Your task to perform on an android device: show emergency info Image 0: 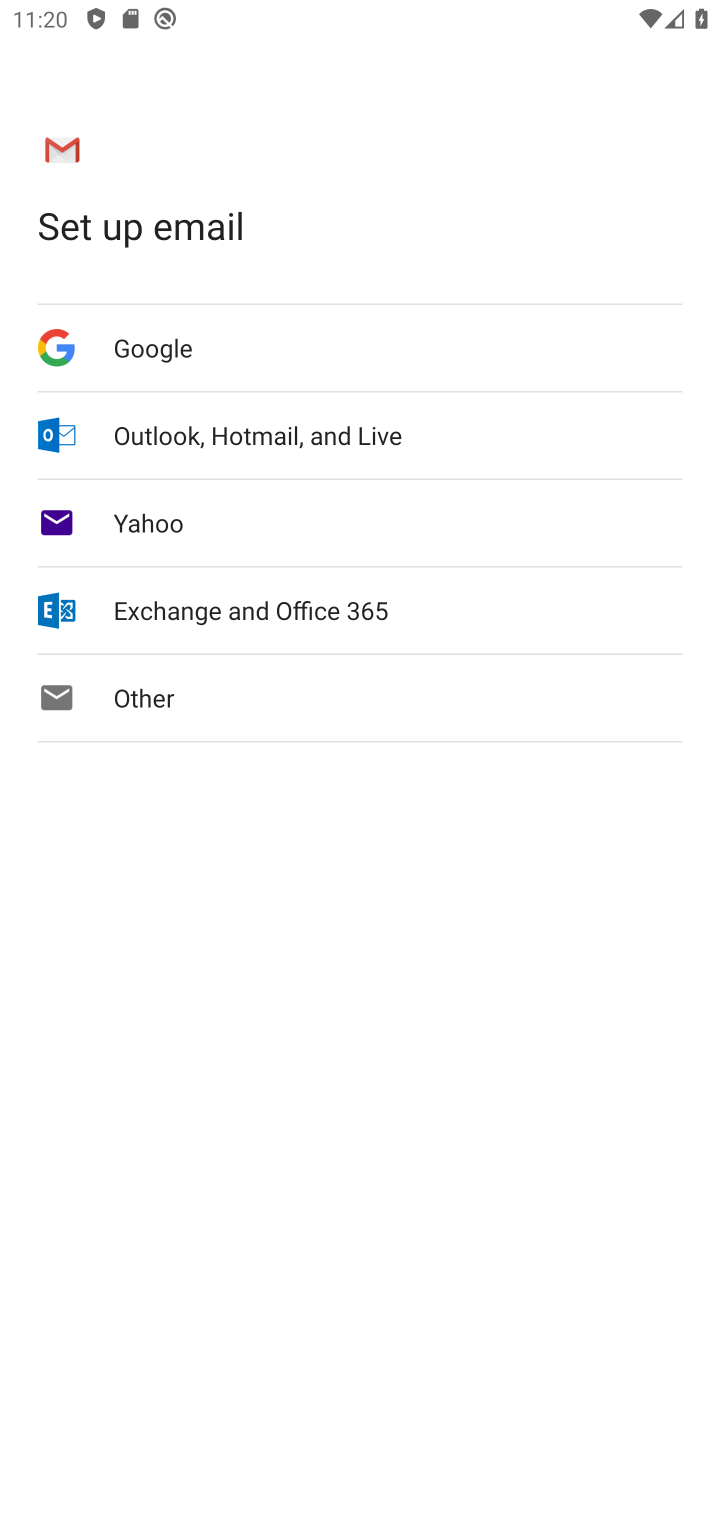
Step 0: press home button
Your task to perform on an android device: show emergency info Image 1: 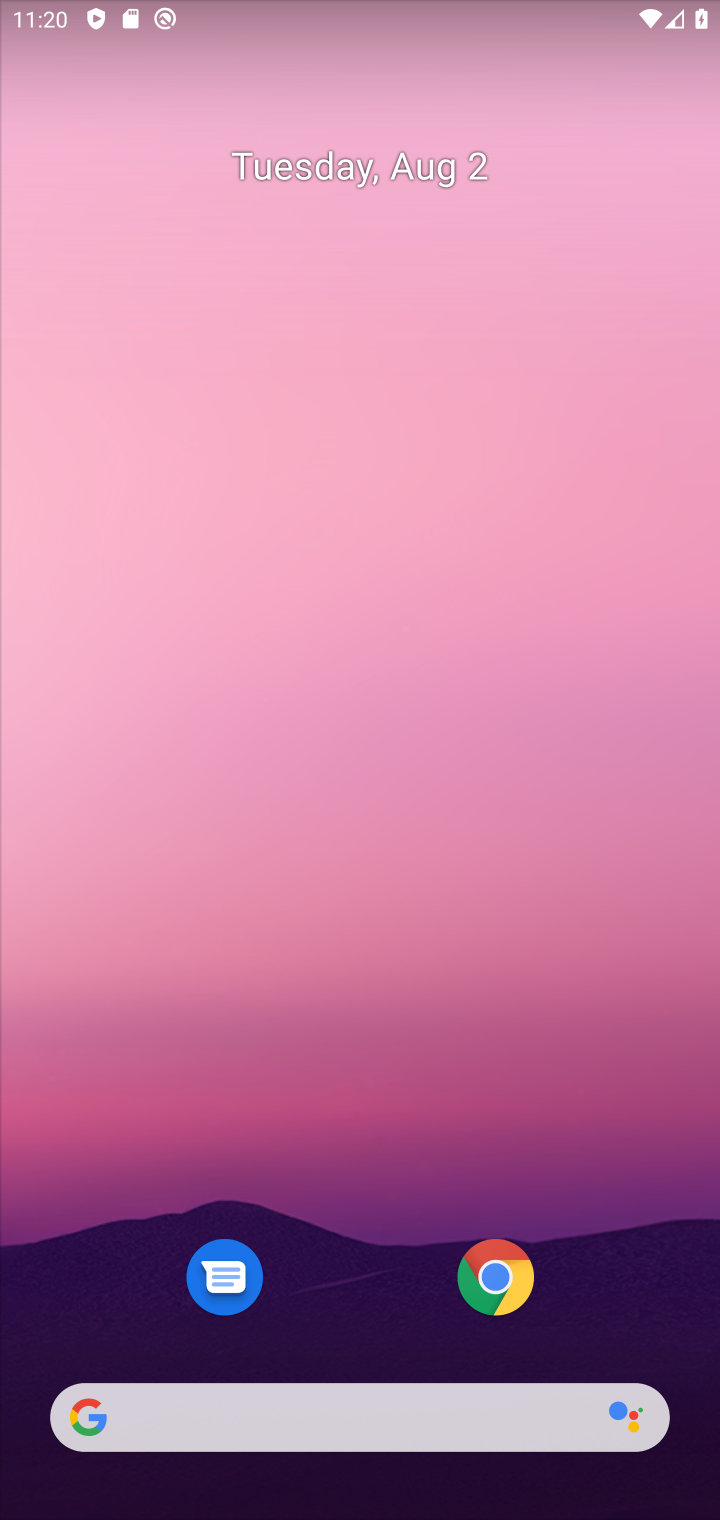
Step 1: drag from (650, 1273) to (456, 186)
Your task to perform on an android device: show emergency info Image 2: 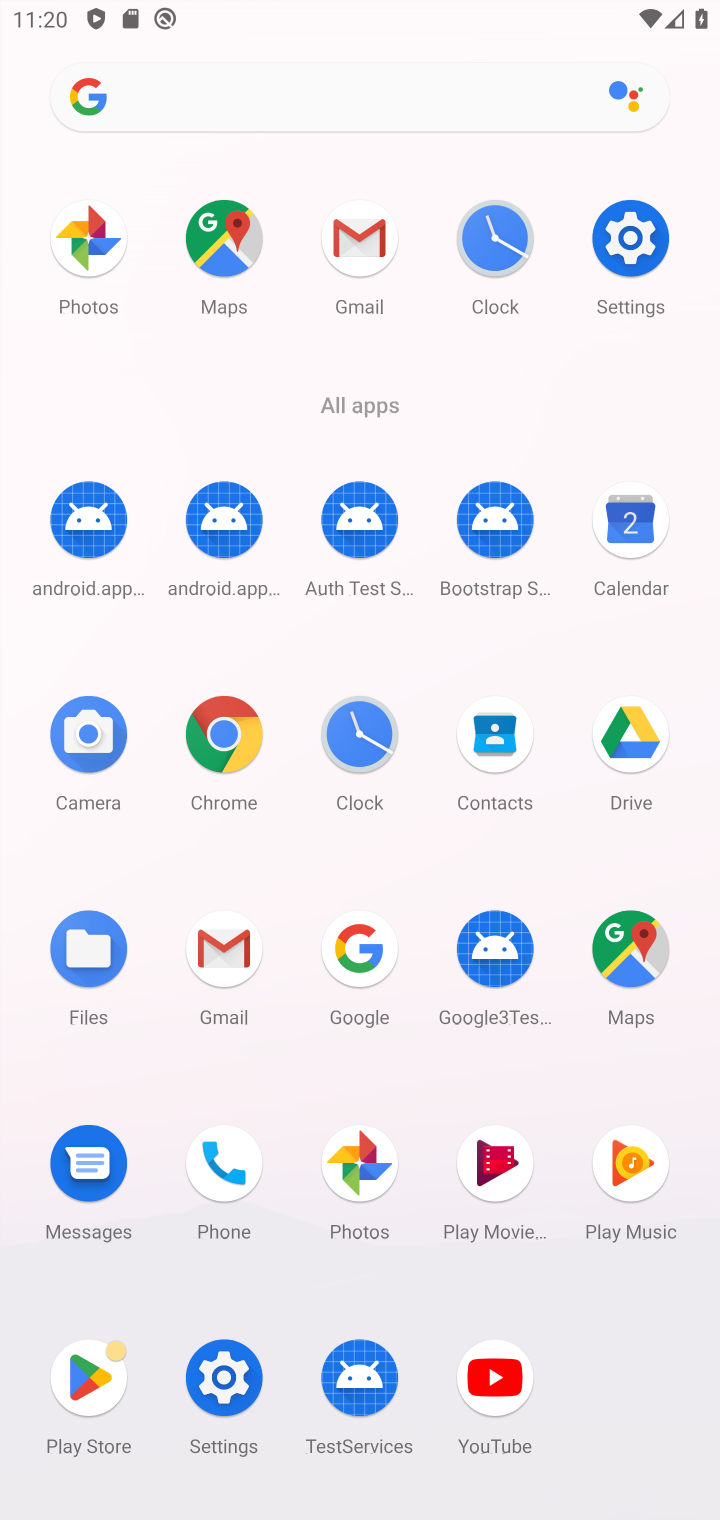
Step 2: click (615, 247)
Your task to perform on an android device: show emergency info Image 3: 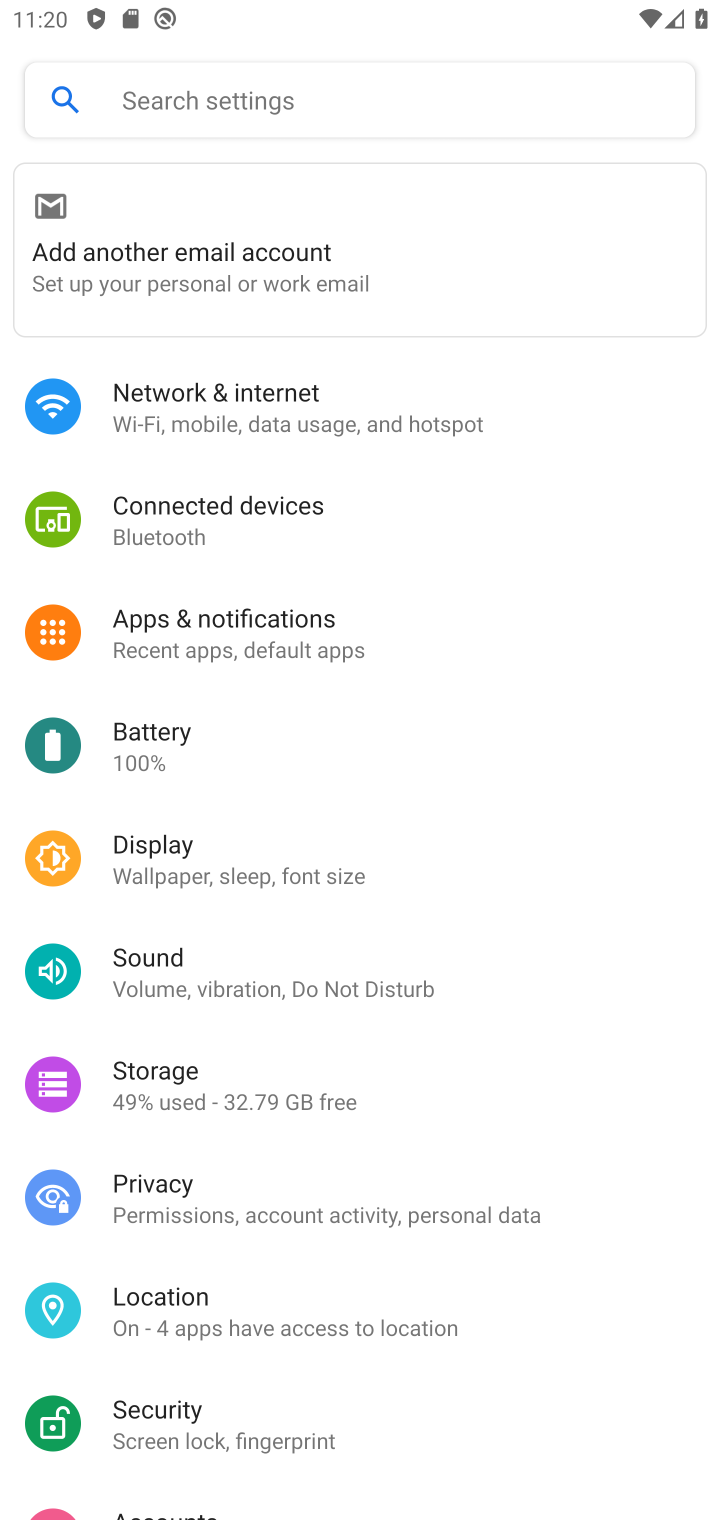
Step 3: drag from (419, 1448) to (332, 618)
Your task to perform on an android device: show emergency info Image 4: 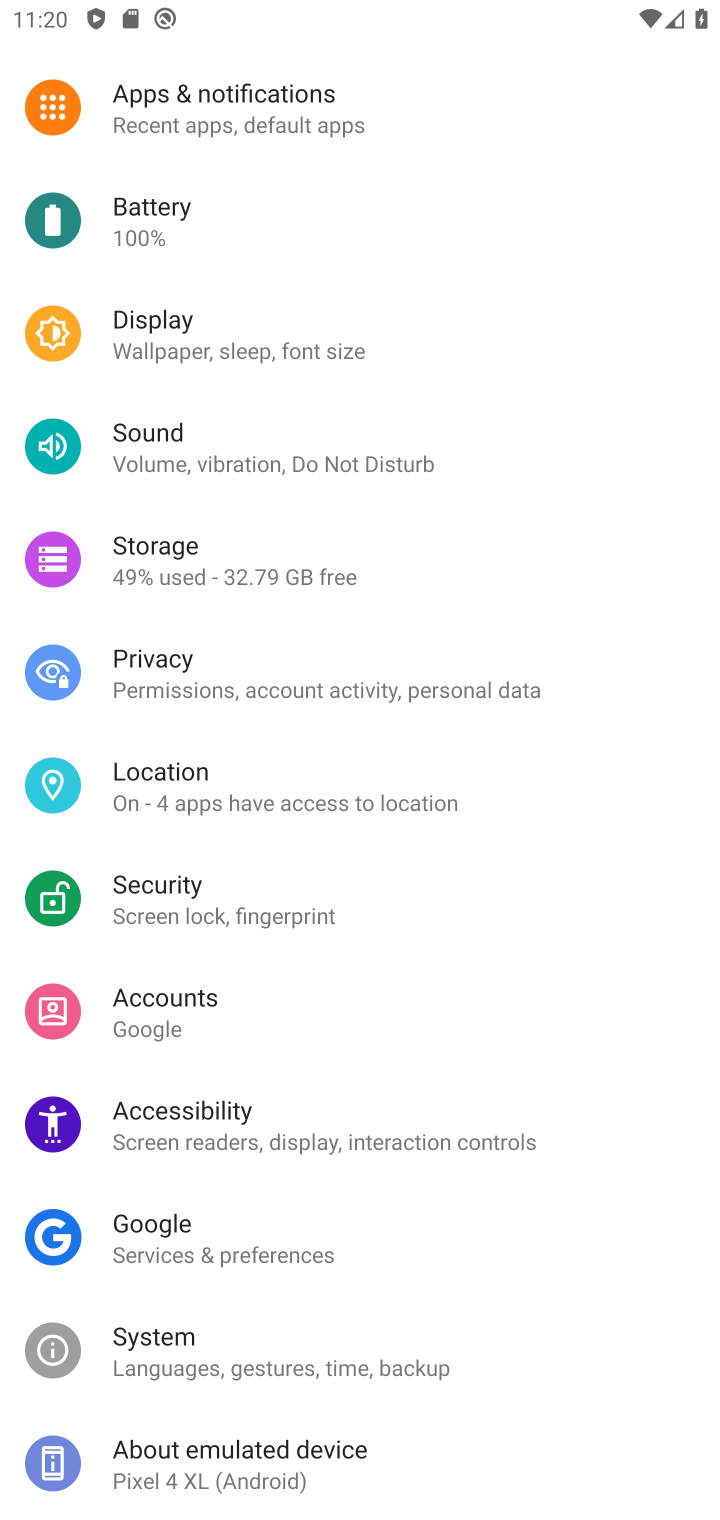
Step 4: drag from (387, 1431) to (329, 796)
Your task to perform on an android device: show emergency info Image 5: 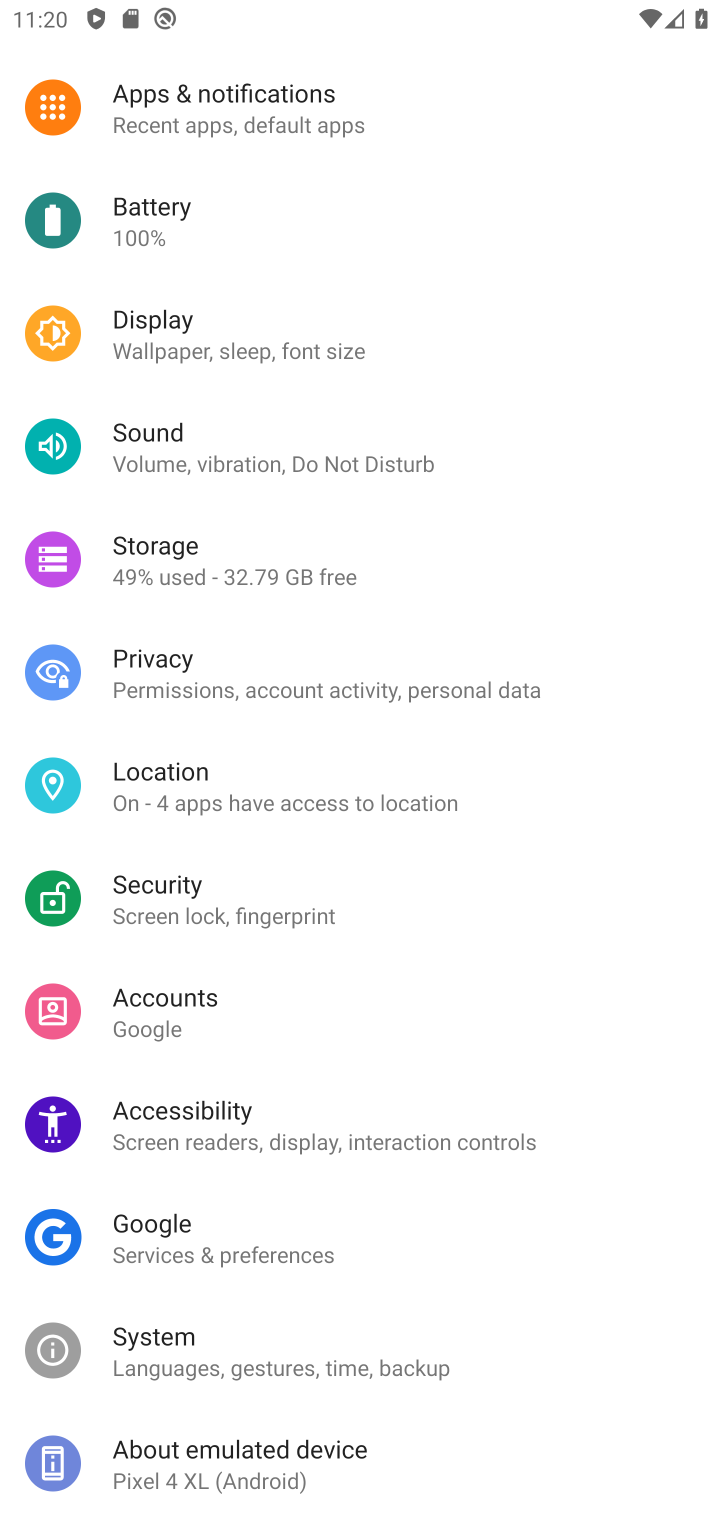
Step 5: click (414, 1485)
Your task to perform on an android device: show emergency info Image 6: 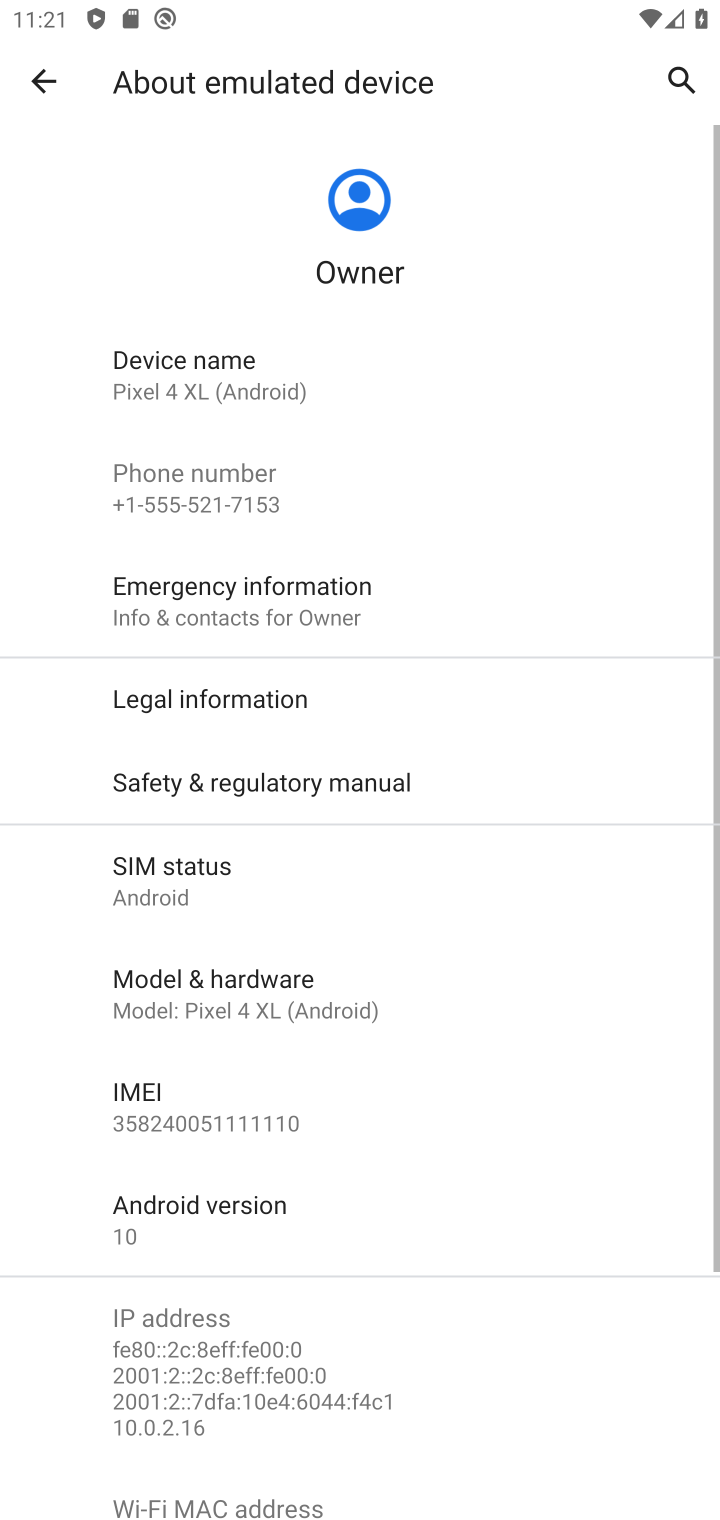
Step 6: click (358, 579)
Your task to perform on an android device: show emergency info Image 7: 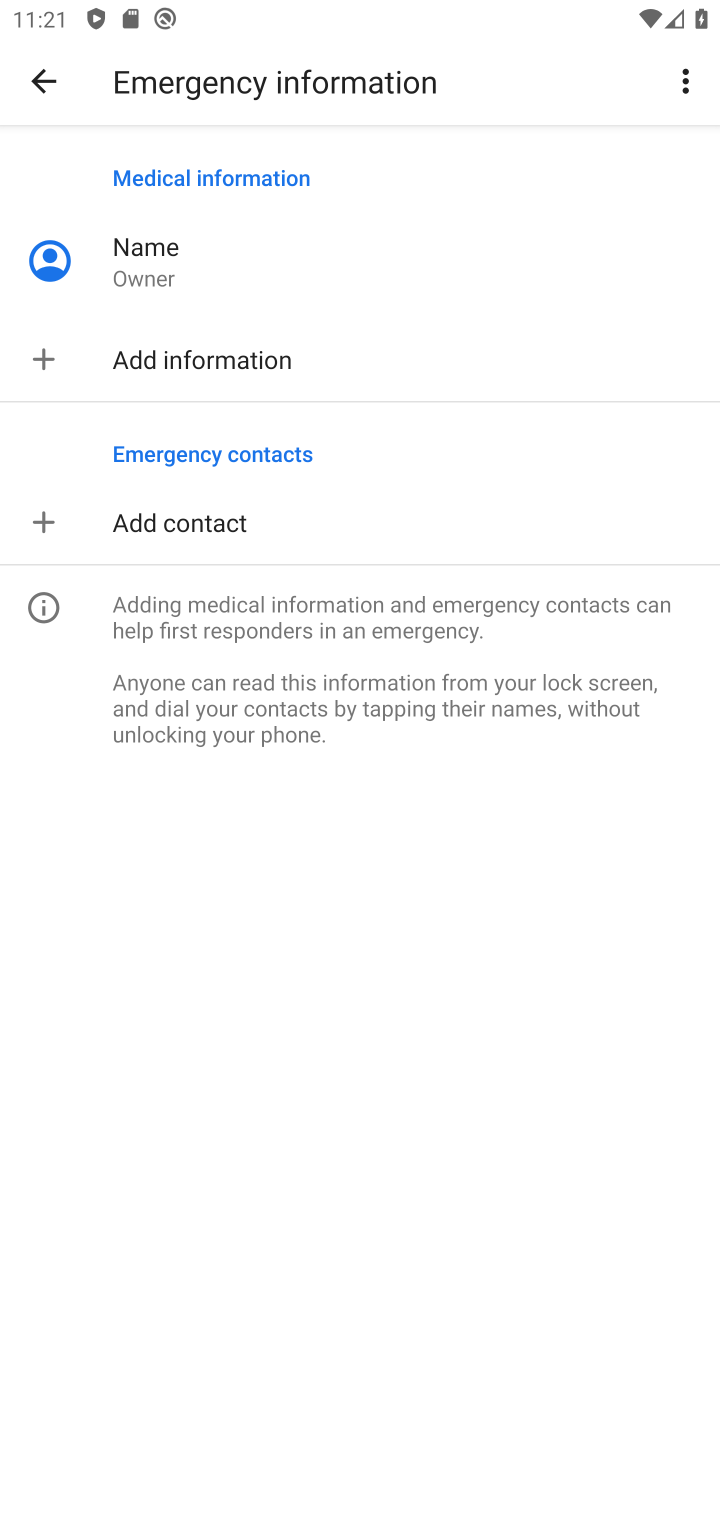
Step 7: task complete